Your task to perform on an android device: turn on bluetooth scan Image 0: 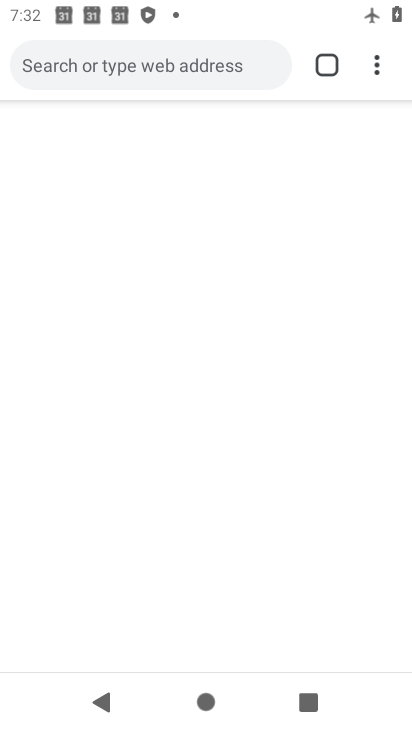
Step 0: drag from (366, 594) to (376, 541)
Your task to perform on an android device: turn on bluetooth scan Image 1: 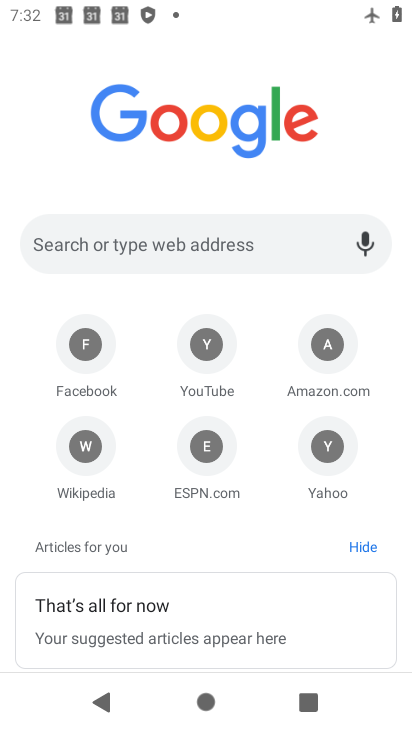
Step 1: press home button
Your task to perform on an android device: turn on bluetooth scan Image 2: 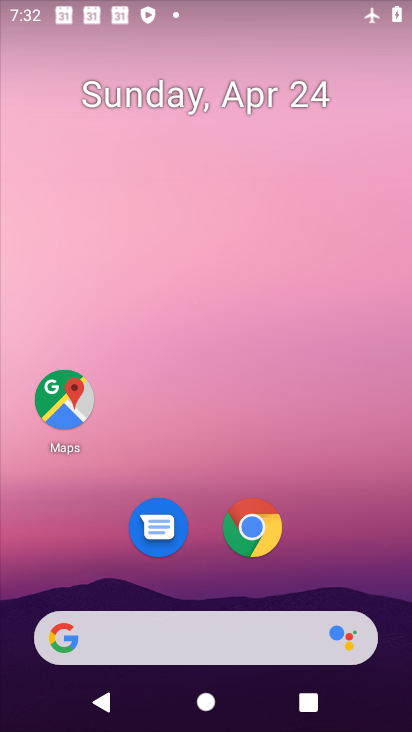
Step 2: drag from (369, 591) to (272, 26)
Your task to perform on an android device: turn on bluetooth scan Image 3: 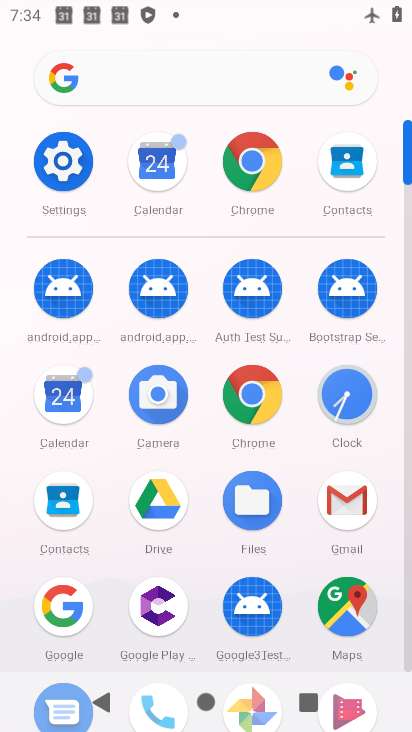
Step 3: click (62, 161)
Your task to perform on an android device: turn on bluetooth scan Image 4: 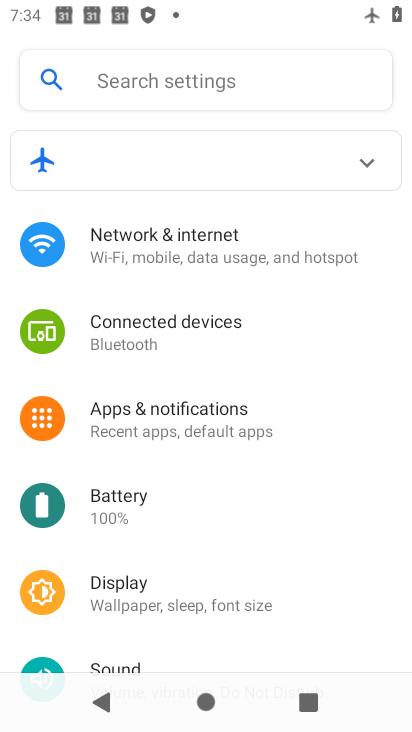
Step 4: drag from (267, 577) to (243, 144)
Your task to perform on an android device: turn on bluetooth scan Image 5: 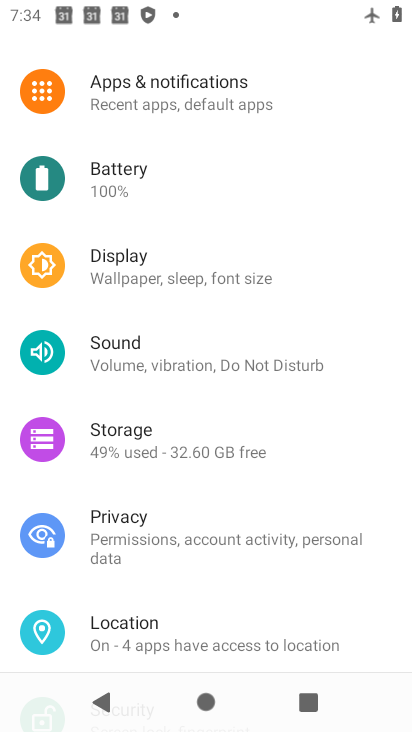
Step 5: click (111, 631)
Your task to perform on an android device: turn on bluetooth scan Image 6: 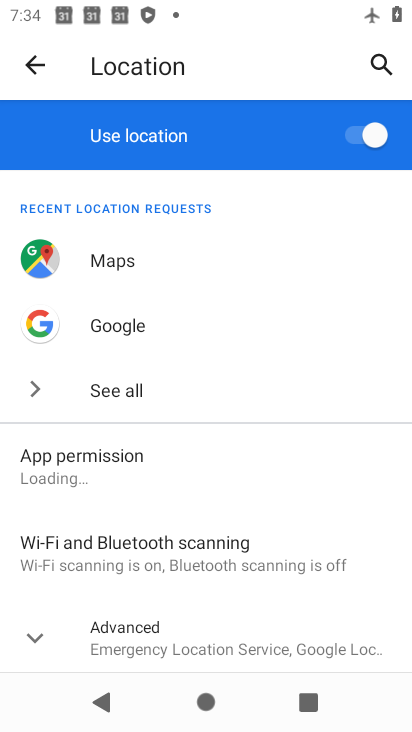
Step 6: click (82, 629)
Your task to perform on an android device: turn on bluetooth scan Image 7: 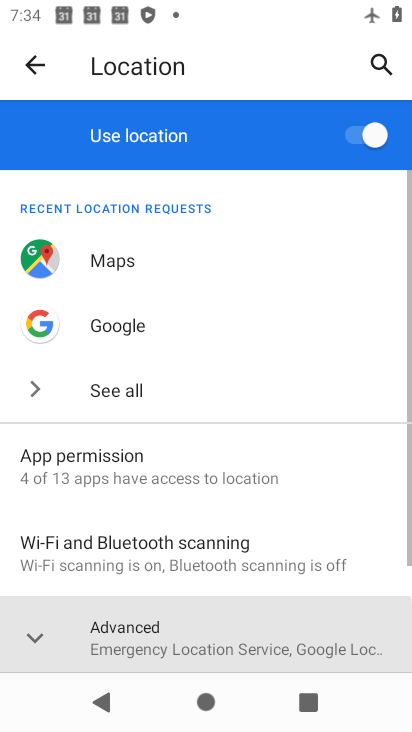
Step 7: drag from (137, 559) to (198, 124)
Your task to perform on an android device: turn on bluetooth scan Image 8: 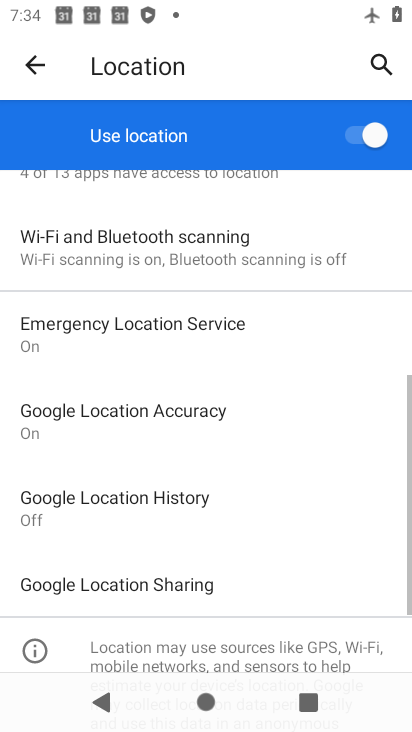
Step 8: click (192, 266)
Your task to perform on an android device: turn on bluetooth scan Image 9: 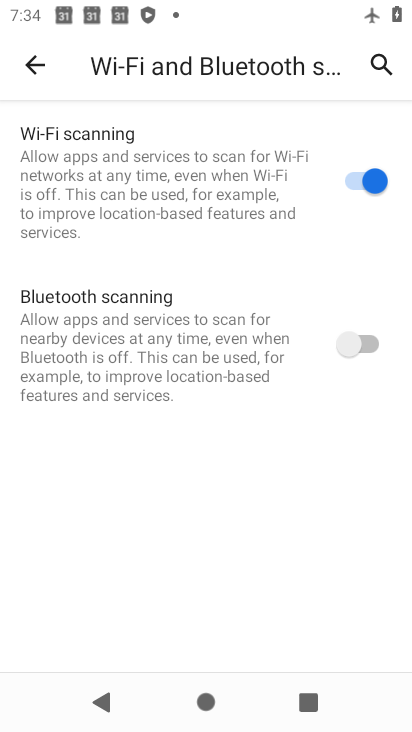
Step 9: click (322, 340)
Your task to perform on an android device: turn on bluetooth scan Image 10: 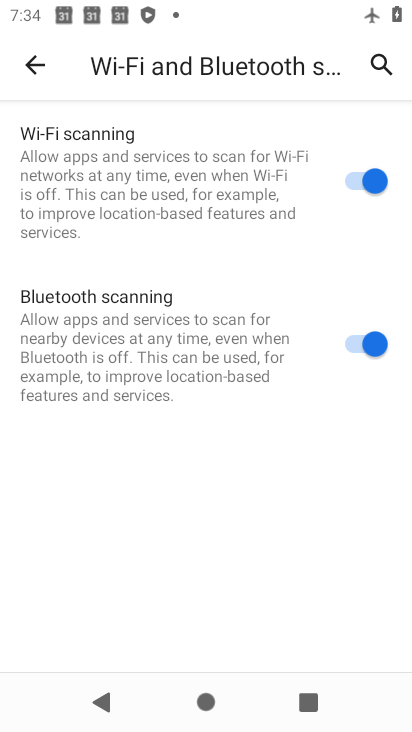
Step 10: task complete